Your task to perform on an android device: search for starred emails in the gmail app Image 0: 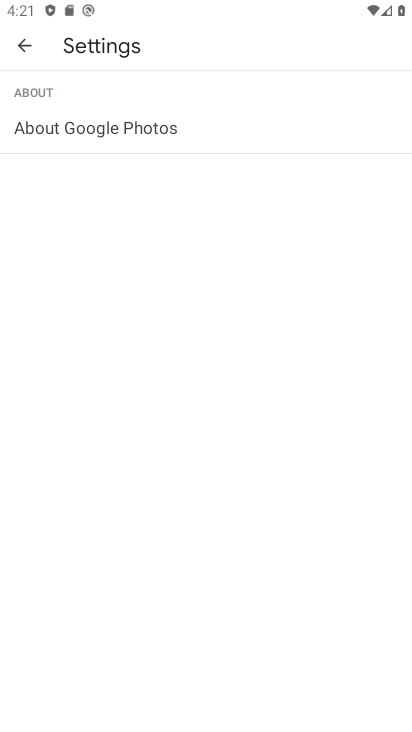
Step 0: press back button
Your task to perform on an android device: search for starred emails in the gmail app Image 1: 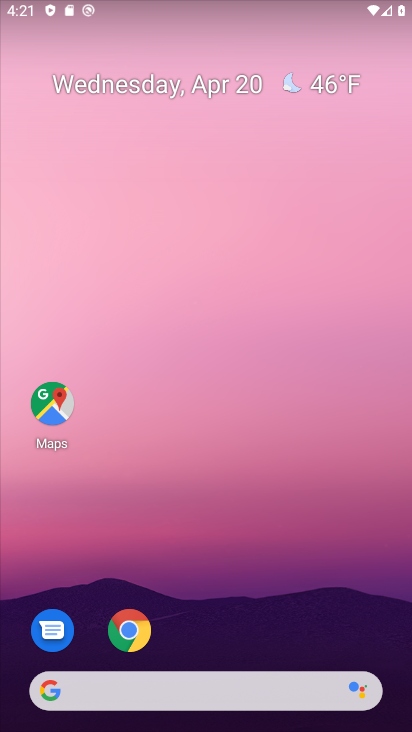
Step 1: drag from (262, 671) to (328, 251)
Your task to perform on an android device: search for starred emails in the gmail app Image 2: 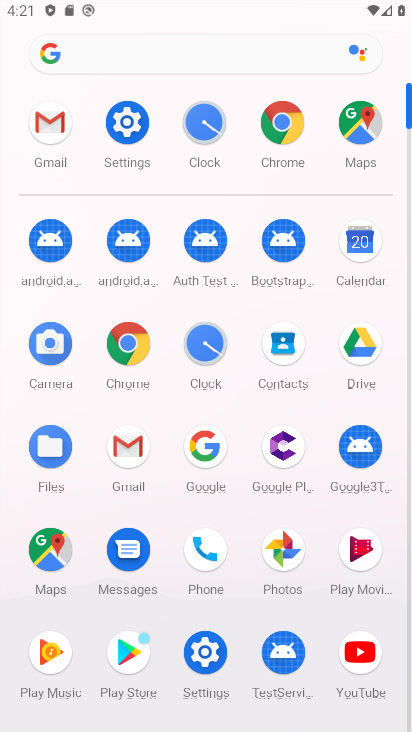
Step 2: click (127, 453)
Your task to perform on an android device: search for starred emails in the gmail app Image 3: 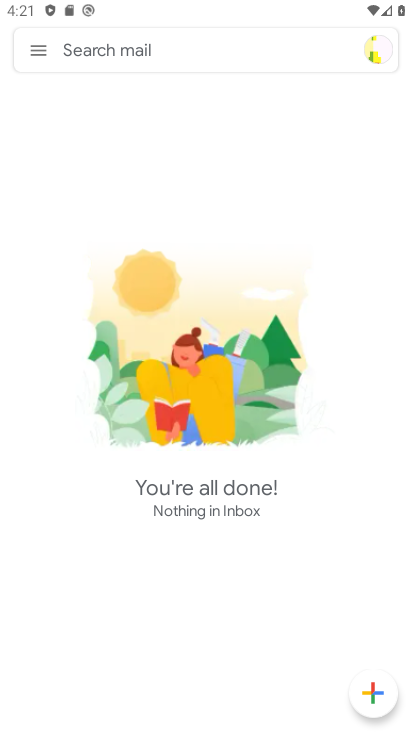
Step 3: click (34, 57)
Your task to perform on an android device: search for starred emails in the gmail app Image 4: 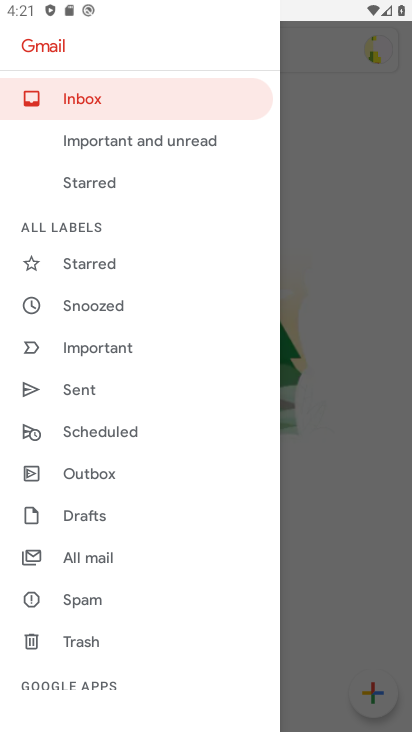
Step 4: click (109, 253)
Your task to perform on an android device: search for starred emails in the gmail app Image 5: 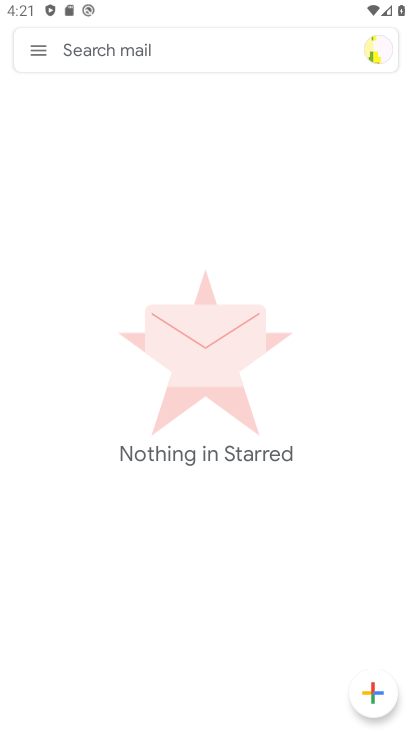
Step 5: task complete